Your task to perform on an android device: When is my next appointment? Image 0: 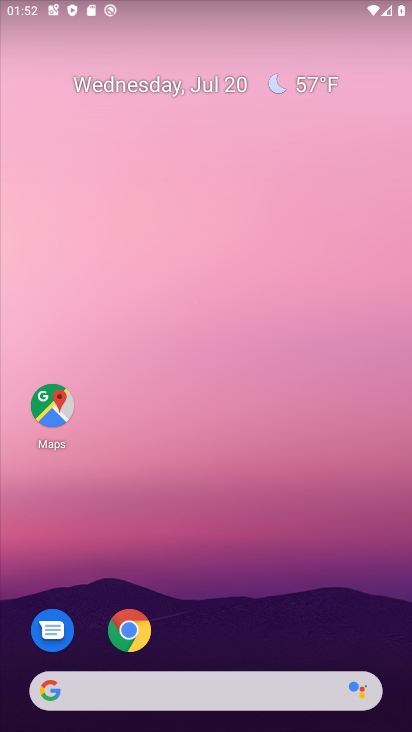
Step 0: drag from (305, 633) to (280, 146)
Your task to perform on an android device: When is my next appointment? Image 1: 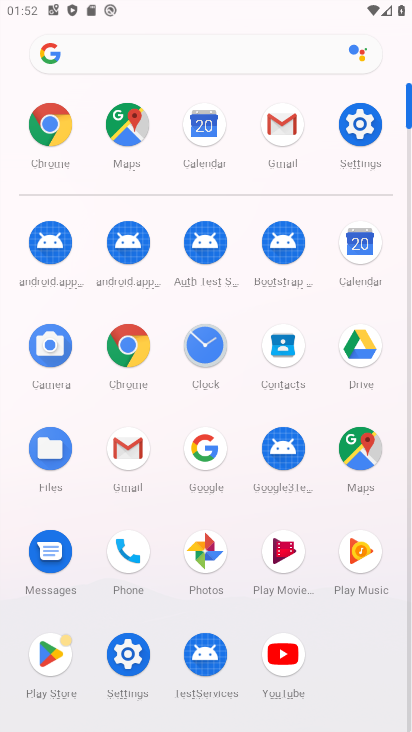
Step 1: click (210, 128)
Your task to perform on an android device: When is my next appointment? Image 2: 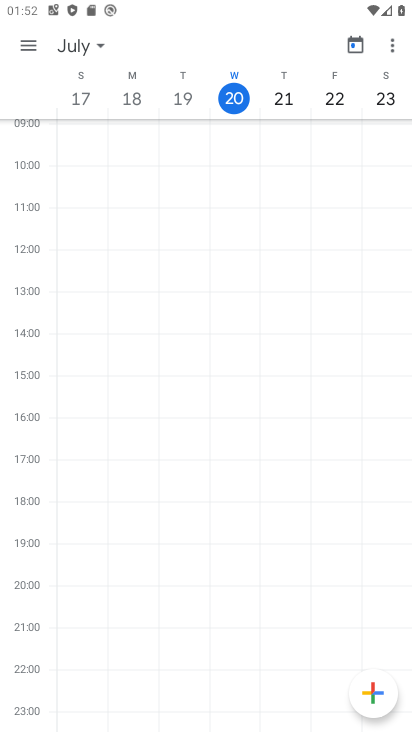
Step 2: task complete